Your task to perform on an android device: Open location settings Image 0: 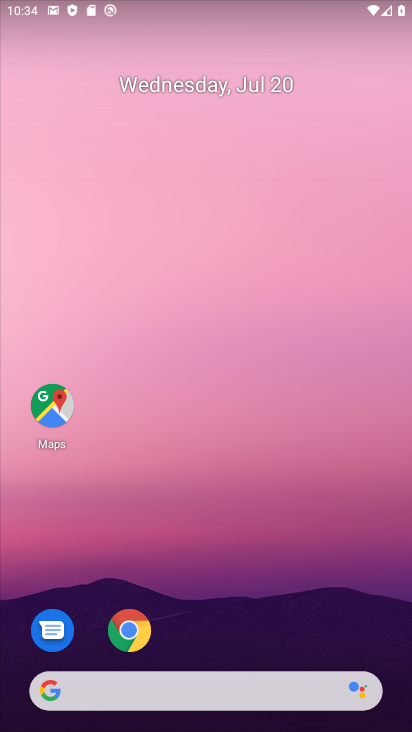
Step 0: drag from (201, 656) to (137, 62)
Your task to perform on an android device: Open location settings Image 1: 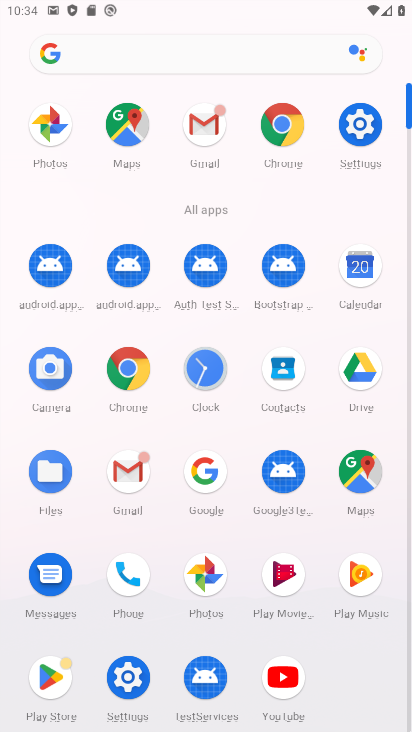
Step 1: click (359, 129)
Your task to perform on an android device: Open location settings Image 2: 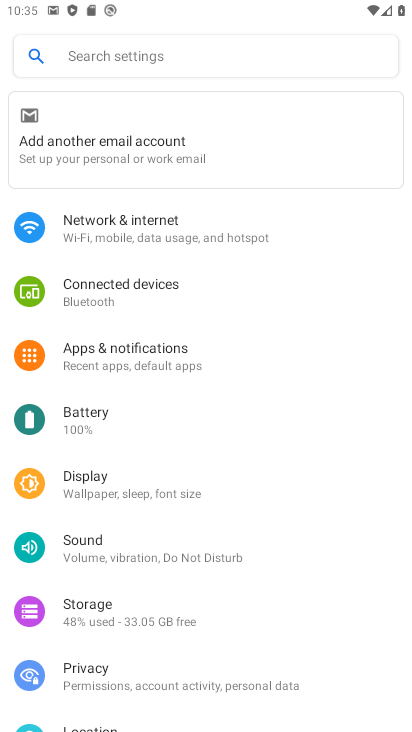
Step 2: drag from (139, 680) to (156, 297)
Your task to perform on an android device: Open location settings Image 3: 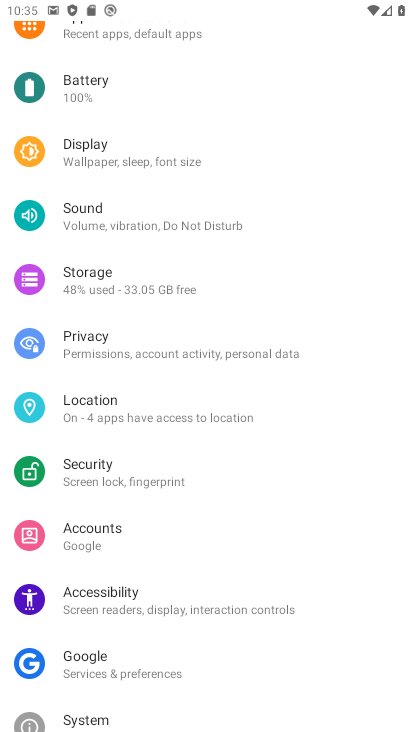
Step 3: click (94, 406)
Your task to perform on an android device: Open location settings Image 4: 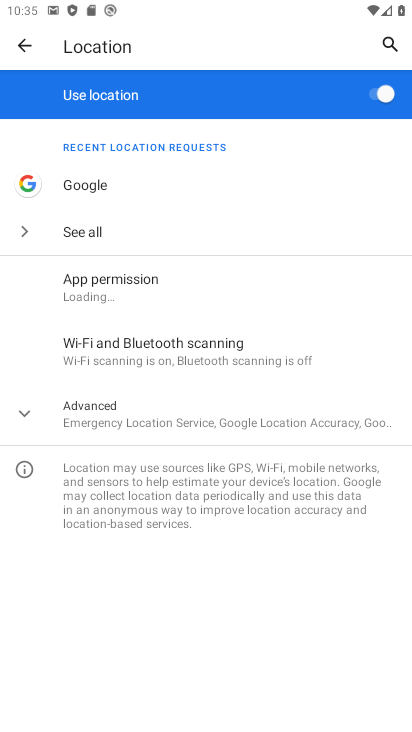
Step 4: task complete